Your task to perform on an android device: Open Google Chrome Image 0: 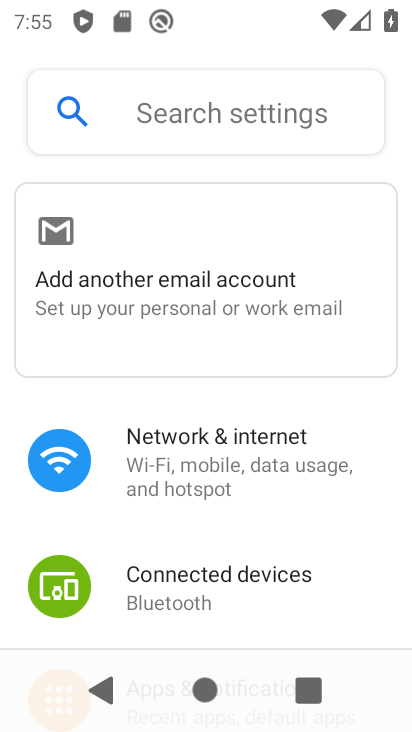
Step 0: press home button
Your task to perform on an android device: Open Google Chrome Image 1: 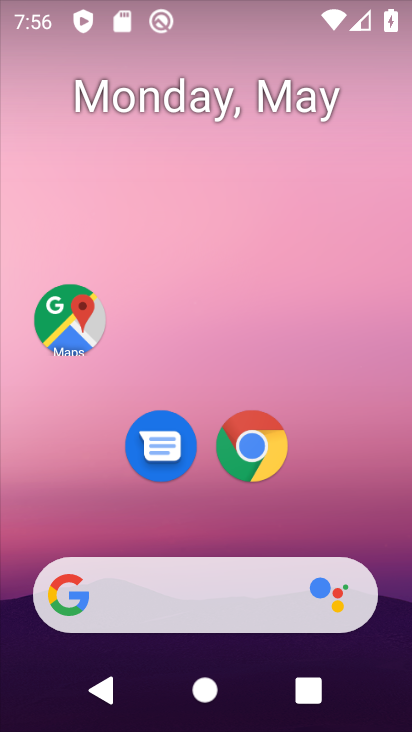
Step 1: click (246, 441)
Your task to perform on an android device: Open Google Chrome Image 2: 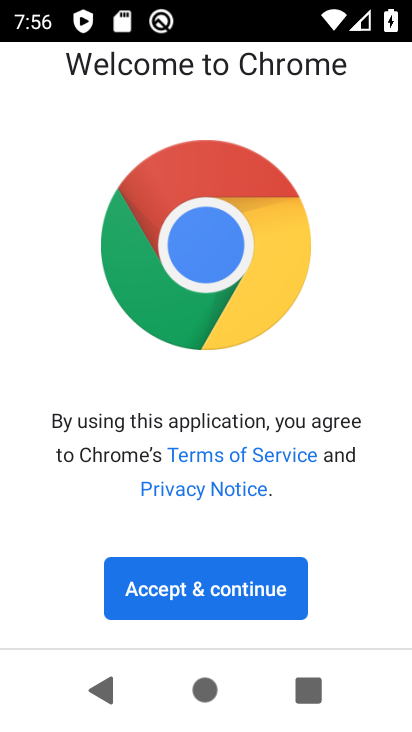
Step 2: click (150, 561)
Your task to perform on an android device: Open Google Chrome Image 3: 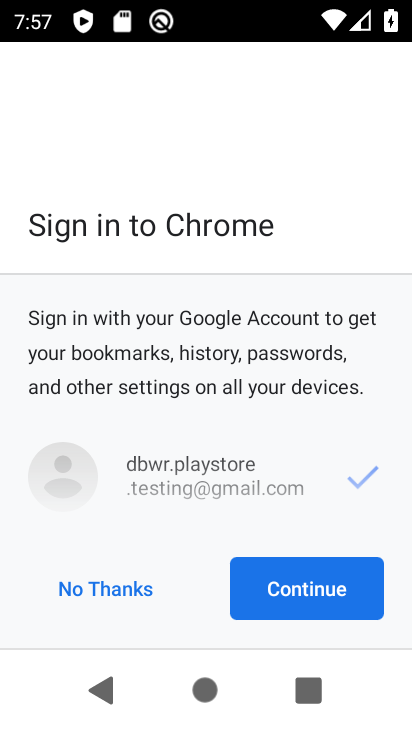
Step 3: click (124, 583)
Your task to perform on an android device: Open Google Chrome Image 4: 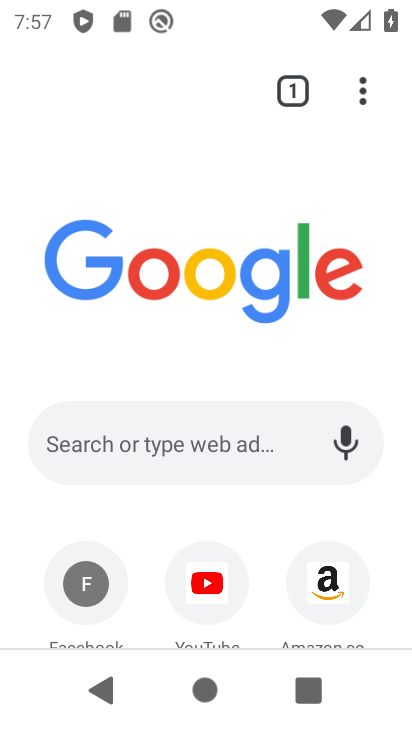
Step 4: task complete